Your task to perform on an android device: Do I have any events today? Image 0: 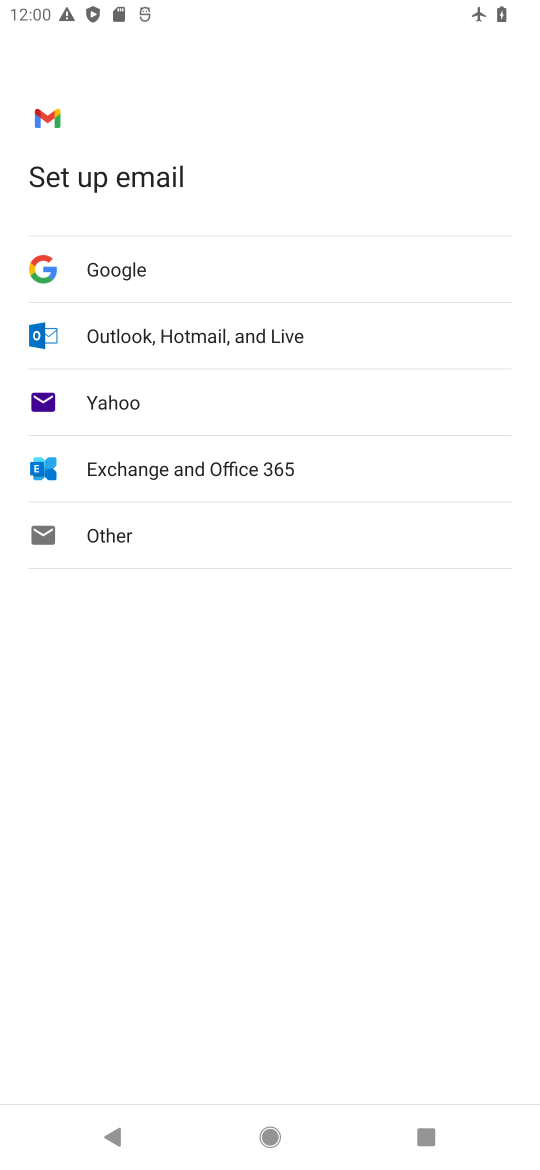
Step 0: press home button
Your task to perform on an android device: Do I have any events today? Image 1: 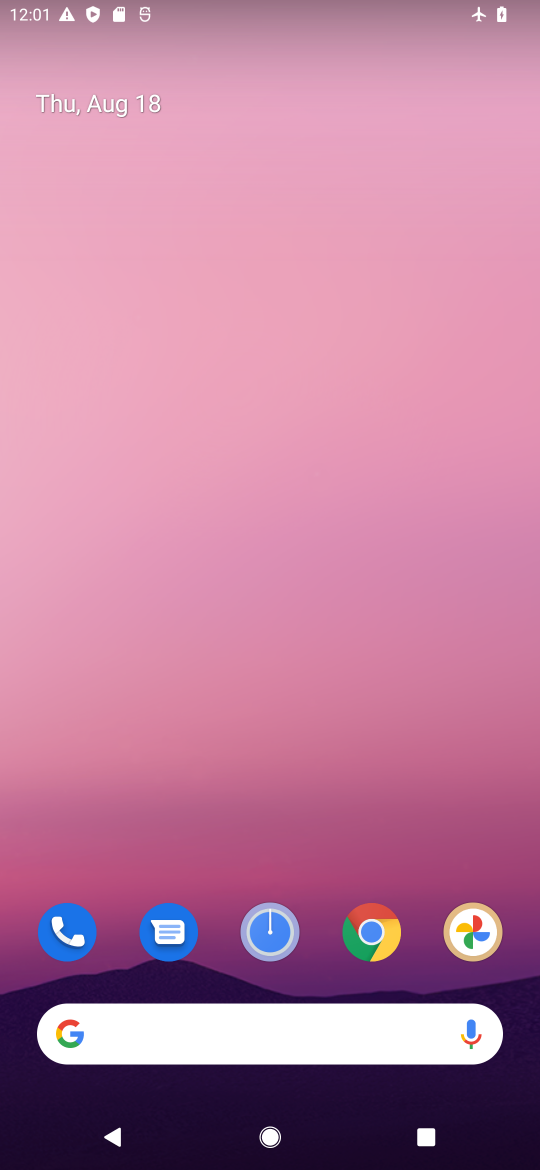
Step 1: drag from (308, 851) to (186, 3)
Your task to perform on an android device: Do I have any events today? Image 2: 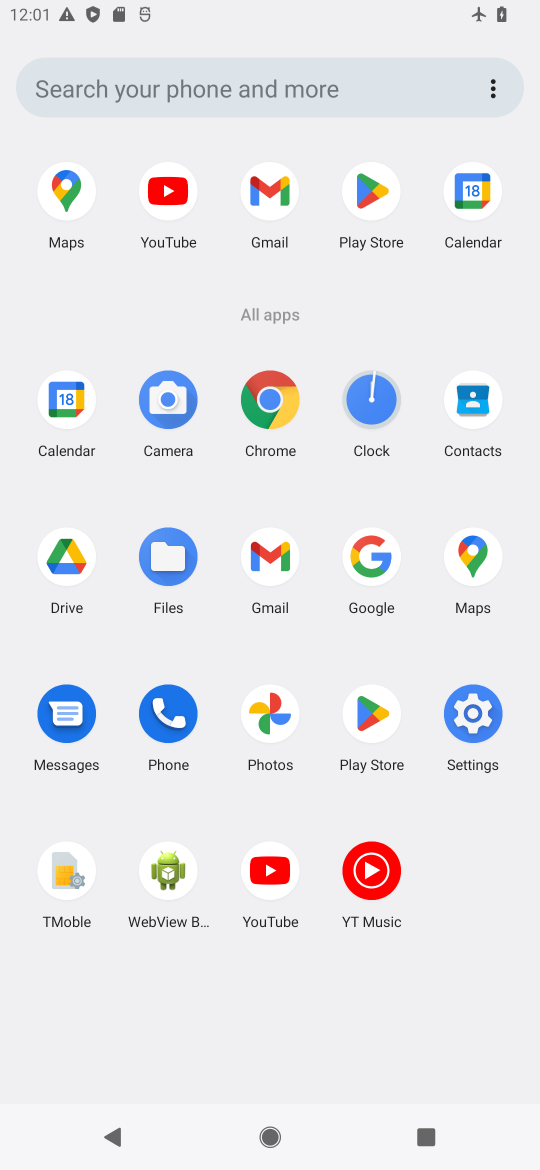
Step 2: click (65, 396)
Your task to perform on an android device: Do I have any events today? Image 3: 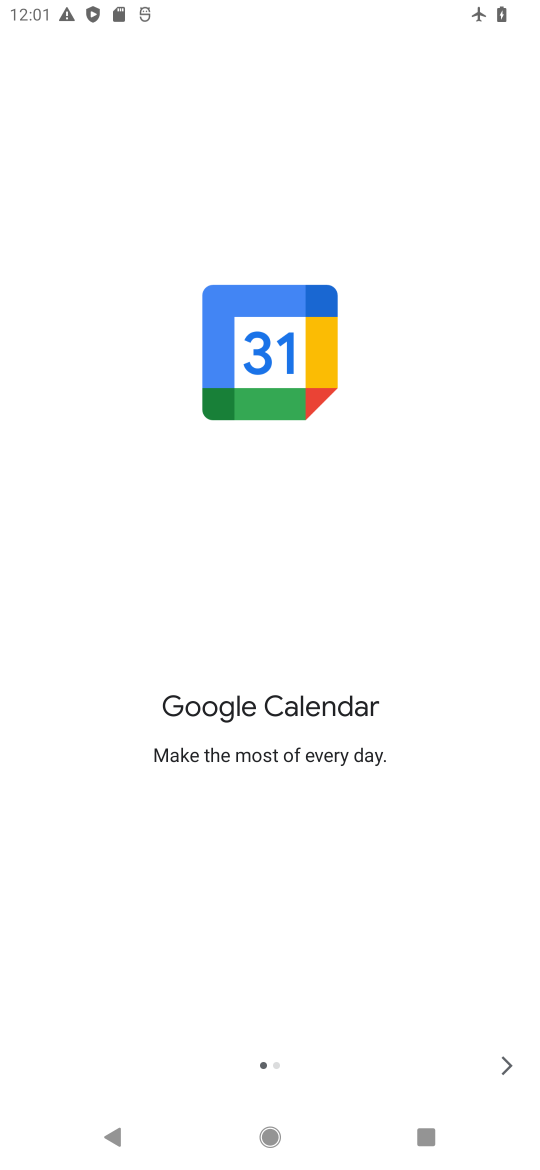
Step 3: click (504, 1059)
Your task to perform on an android device: Do I have any events today? Image 4: 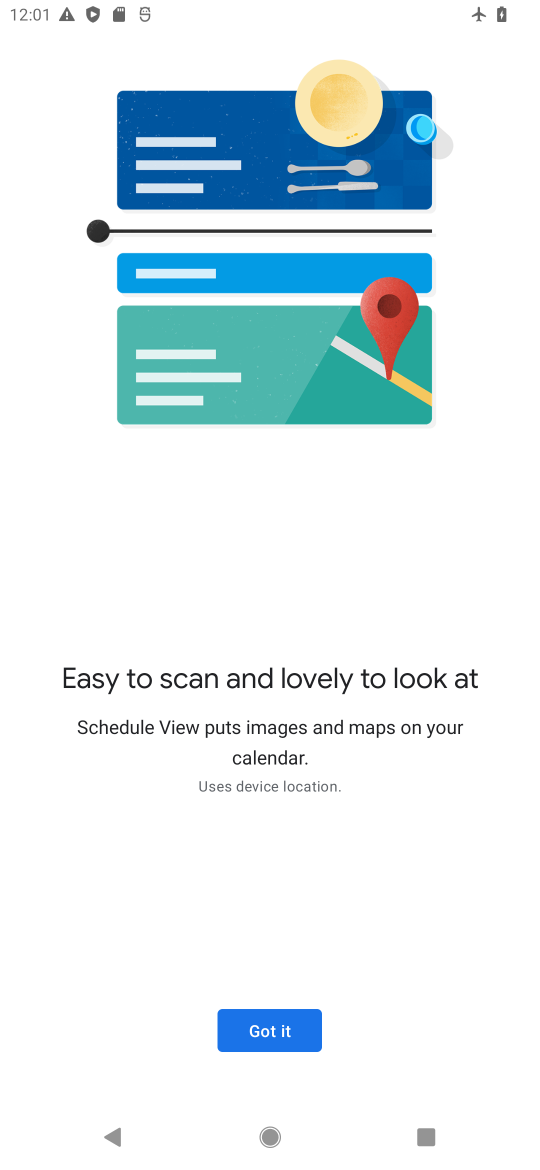
Step 4: click (255, 1033)
Your task to perform on an android device: Do I have any events today? Image 5: 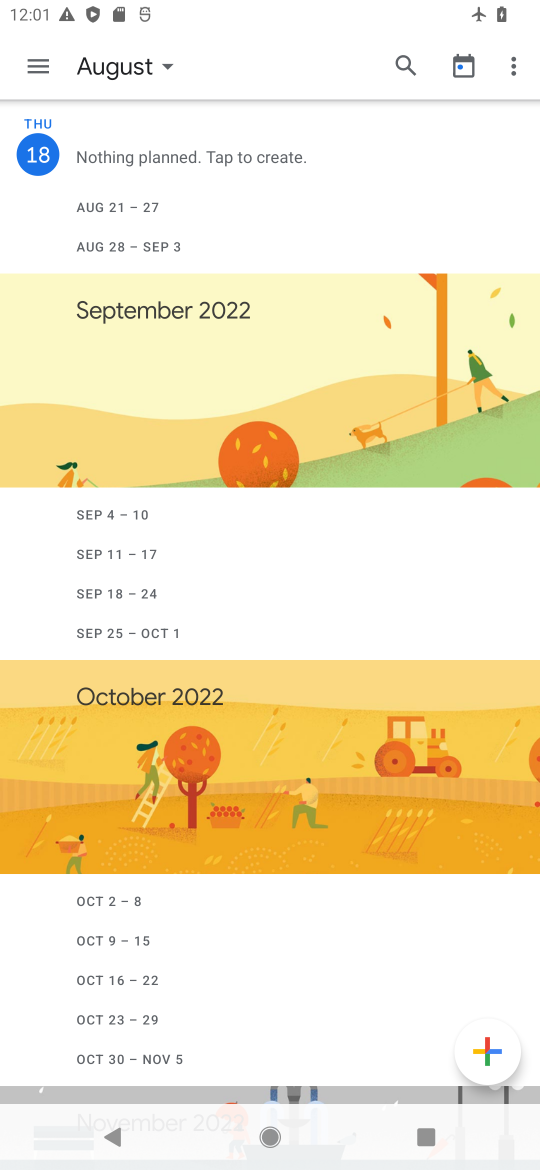
Step 5: click (37, 67)
Your task to perform on an android device: Do I have any events today? Image 6: 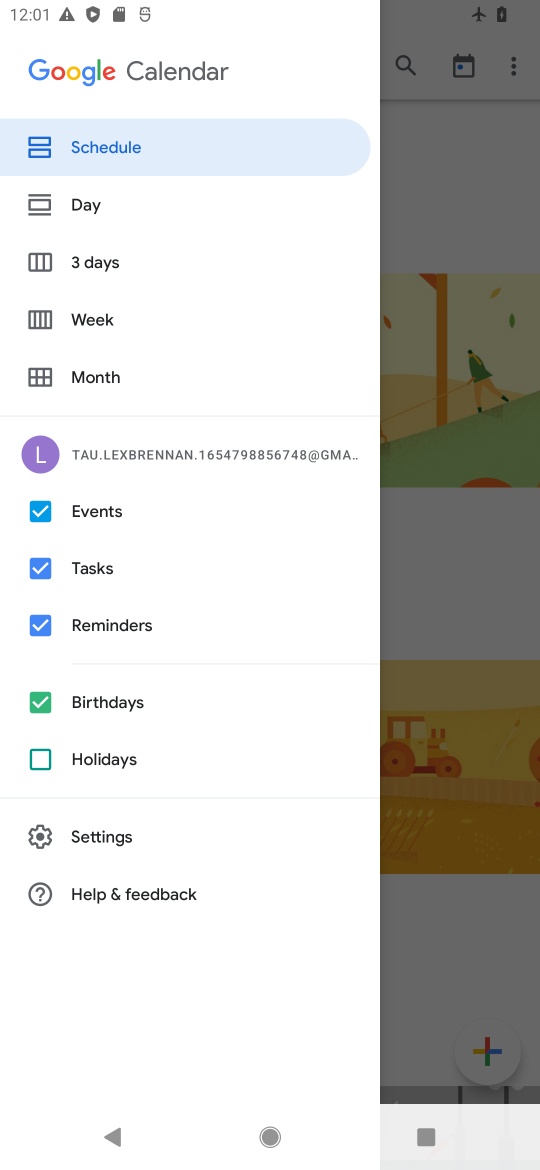
Step 6: click (48, 205)
Your task to perform on an android device: Do I have any events today? Image 7: 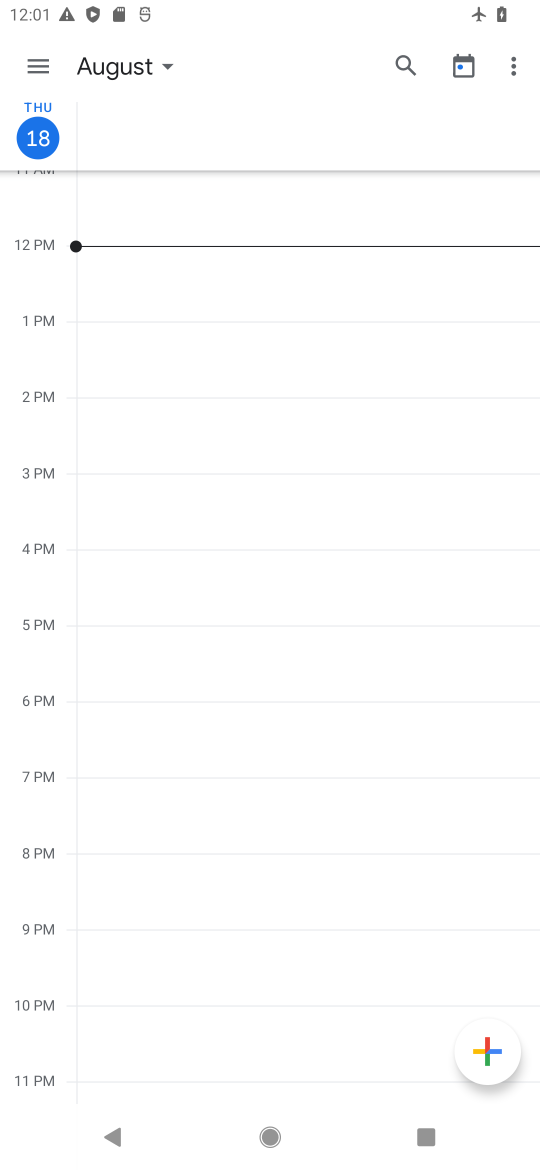
Step 7: task complete